Your task to perform on an android device: turn notification dots off Image 0: 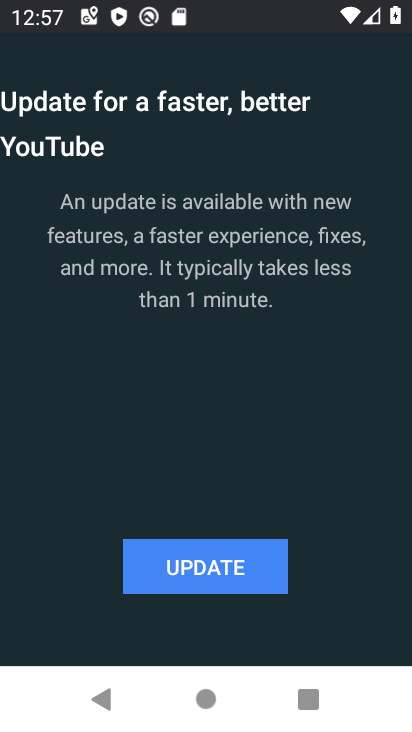
Step 0: press home button
Your task to perform on an android device: turn notification dots off Image 1: 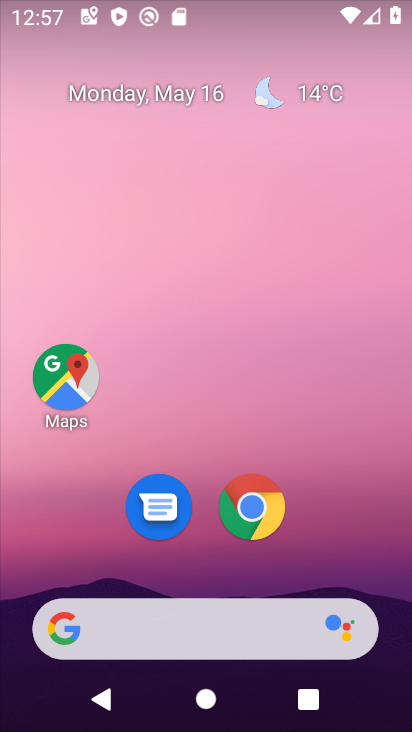
Step 1: drag from (31, 623) to (275, 128)
Your task to perform on an android device: turn notification dots off Image 2: 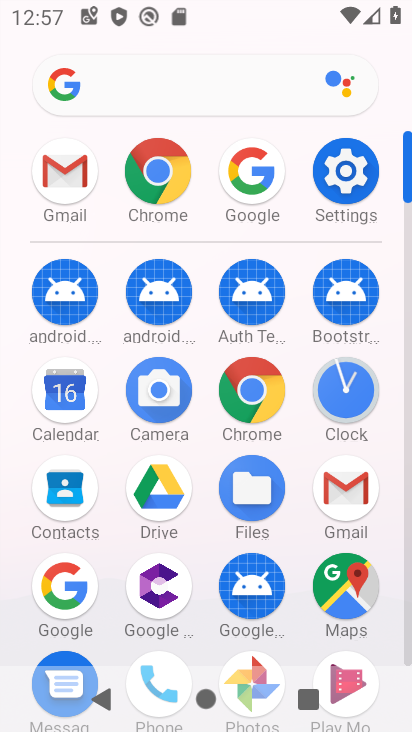
Step 2: click (336, 171)
Your task to perform on an android device: turn notification dots off Image 3: 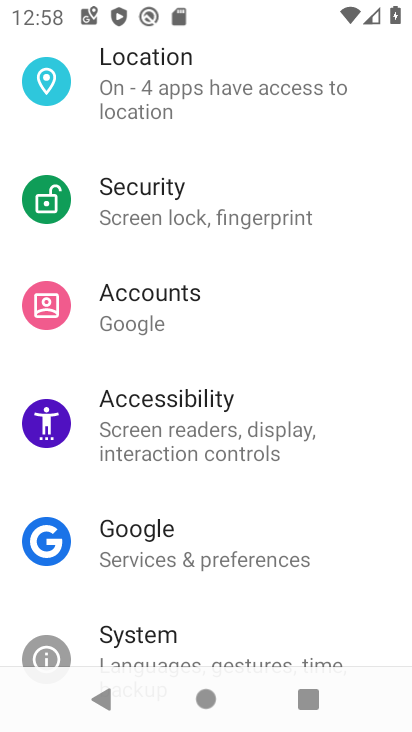
Step 3: drag from (210, 94) to (190, 496)
Your task to perform on an android device: turn notification dots off Image 4: 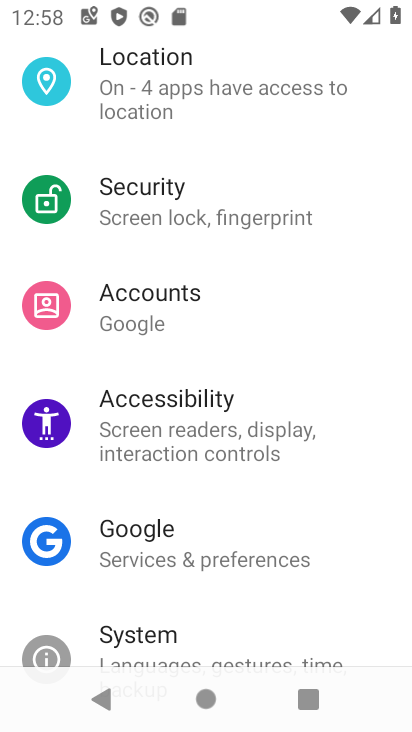
Step 4: drag from (154, 257) to (124, 602)
Your task to perform on an android device: turn notification dots off Image 5: 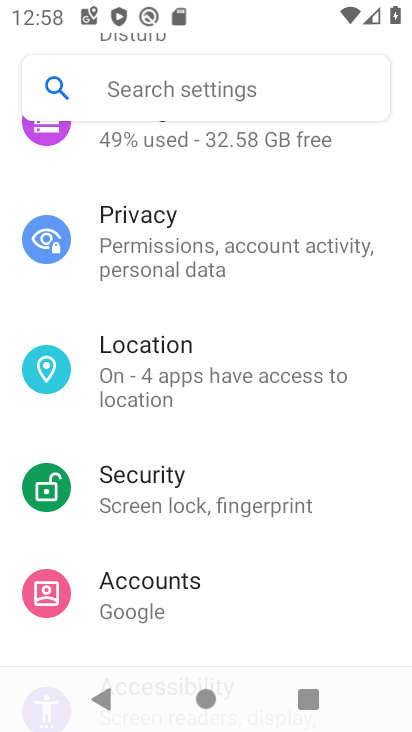
Step 5: drag from (160, 157) to (161, 523)
Your task to perform on an android device: turn notification dots off Image 6: 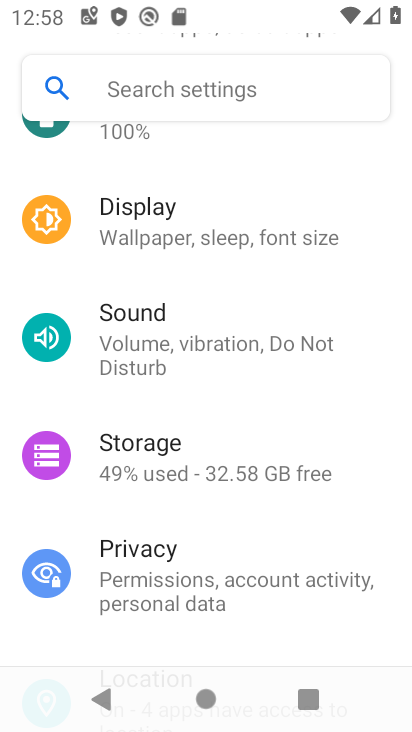
Step 6: drag from (171, 159) to (118, 568)
Your task to perform on an android device: turn notification dots off Image 7: 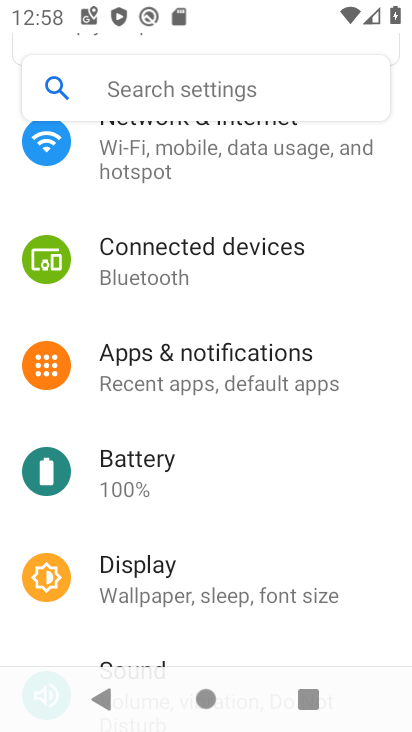
Step 7: click (104, 388)
Your task to perform on an android device: turn notification dots off Image 8: 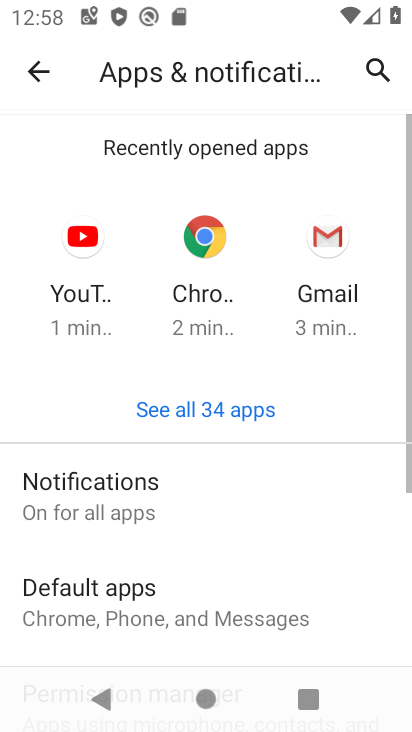
Step 8: click (69, 521)
Your task to perform on an android device: turn notification dots off Image 9: 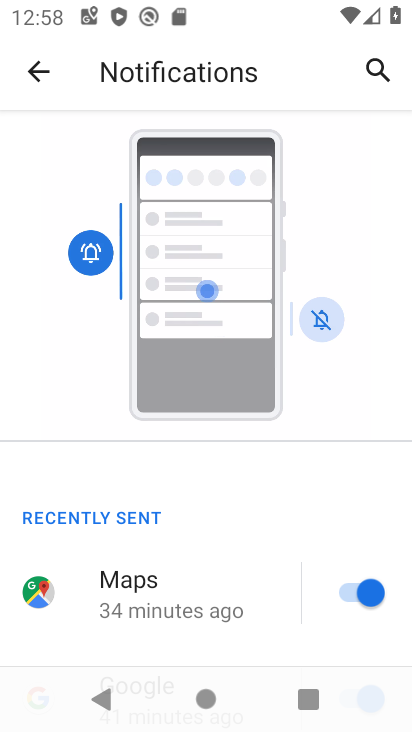
Step 9: drag from (34, 585) to (314, 33)
Your task to perform on an android device: turn notification dots off Image 10: 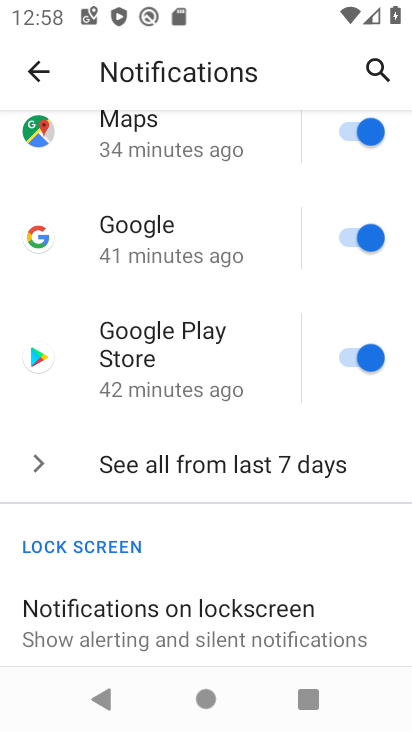
Step 10: drag from (99, 583) to (351, 177)
Your task to perform on an android device: turn notification dots off Image 11: 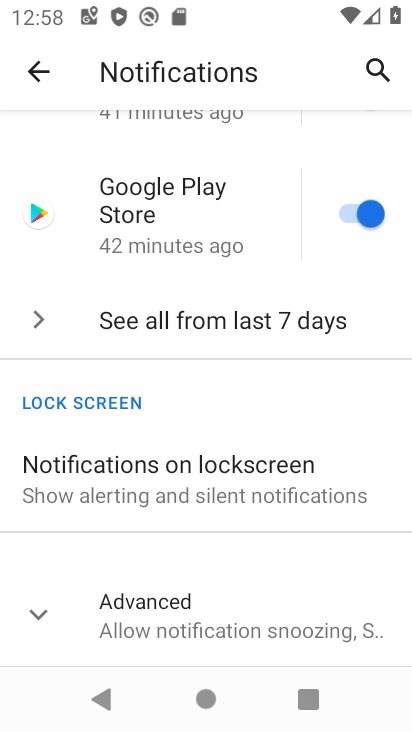
Step 11: click (147, 625)
Your task to perform on an android device: turn notification dots off Image 12: 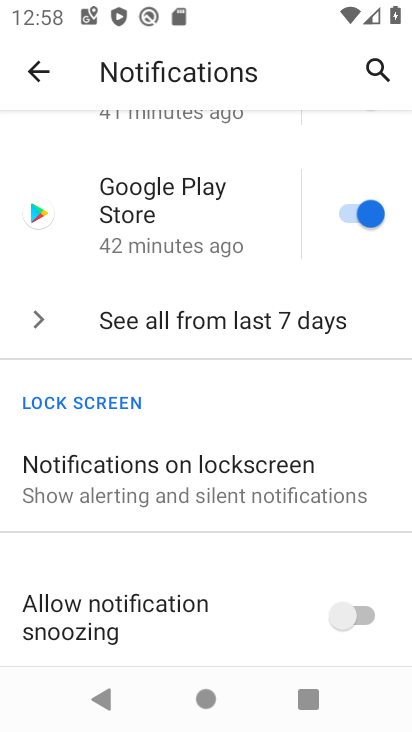
Step 12: drag from (89, 612) to (332, 205)
Your task to perform on an android device: turn notification dots off Image 13: 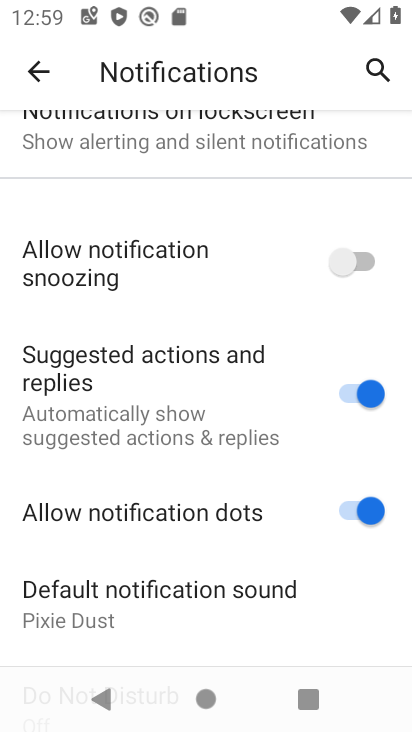
Step 13: click (376, 505)
Your task to perform on an android device: turn notification dots off Image 14: 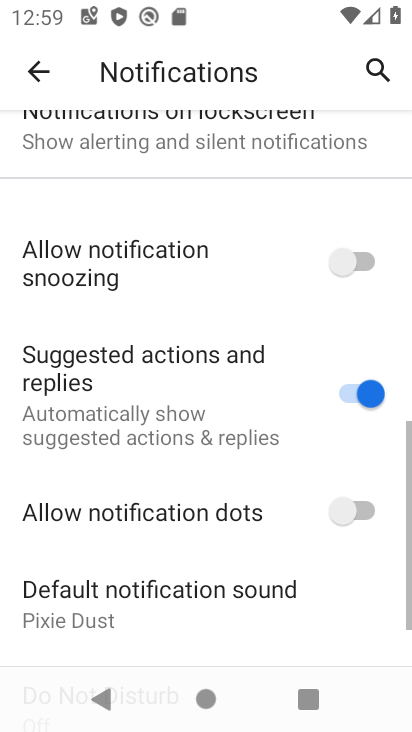
Step 14: task complete